Your task to perform on an android device: toggle data saver in the chrome app Image 0: 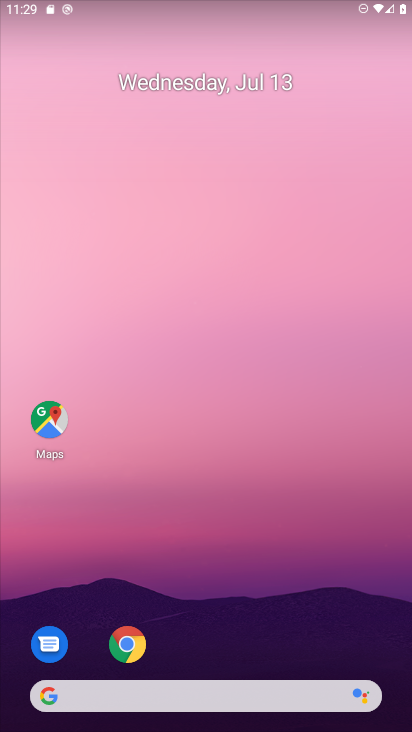
Step 0: click (117, 635)
Your task to perform on an android device: toggle data saver in the chrome app Image 1: 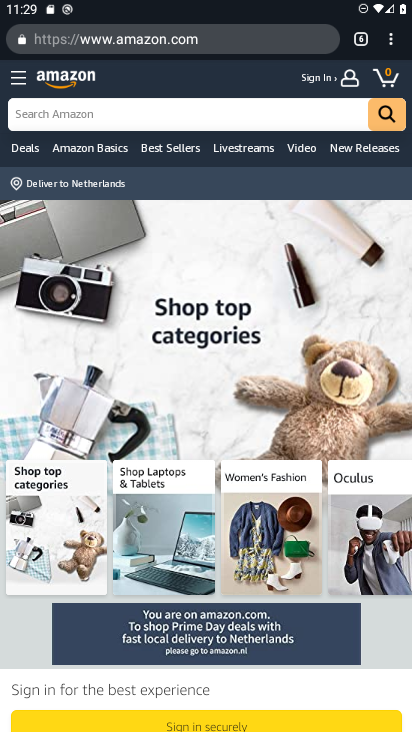
Step 1: click (392, 44)
Your task to perform on an android device: toggle data saver in the chrome app Image 2: 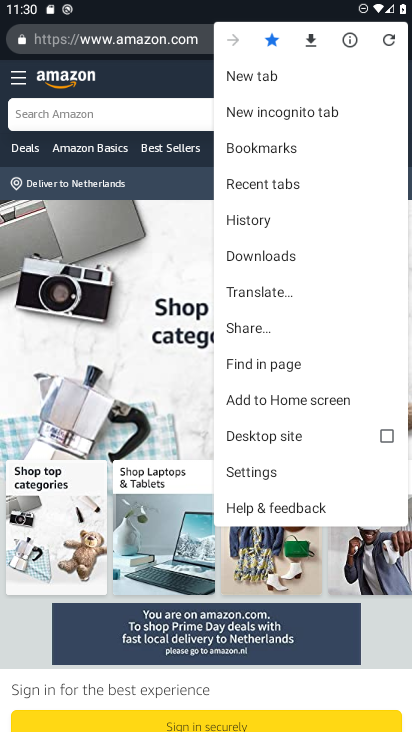
Step 2: click (257, 473)
Your task to perform on an android device: toggle data saver in the chrome app Image 3: 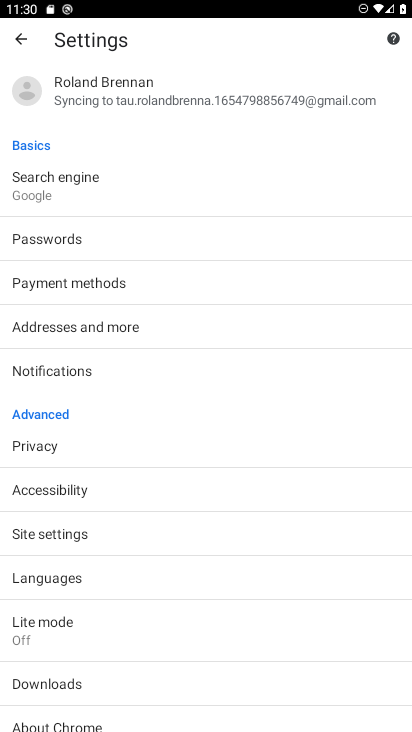
Step 3: click (51, 626)
Your task to perform on an android device: toggle data saver in the chrome app Image 4: 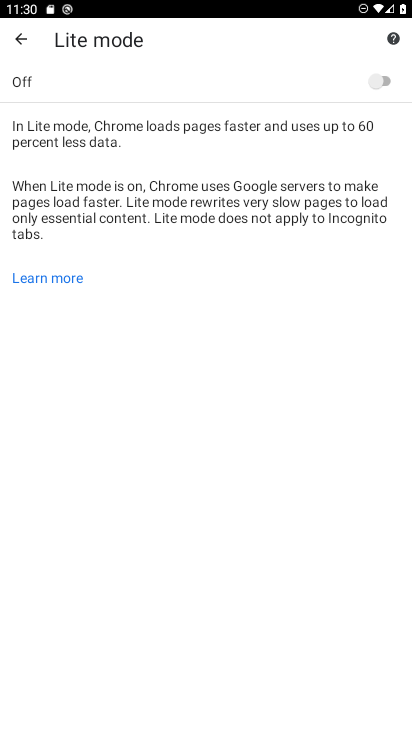
Step 4: click (378, 73)
Your task to perform on an android device: toggle data saver in the chrome app Image 5: 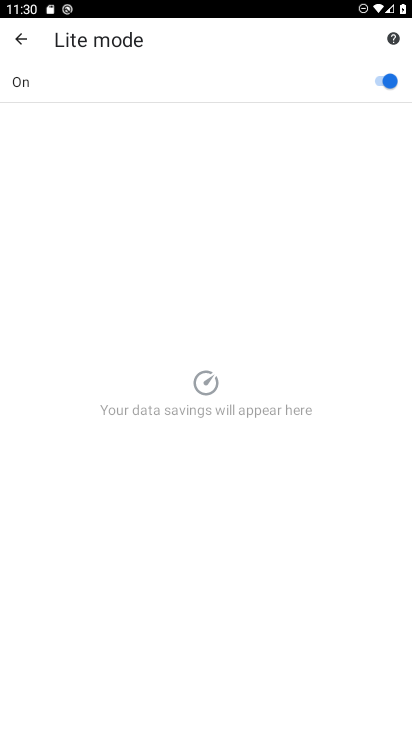
Step 5: task complete